Your task to perform on an android device: visit the assistant section in the google photos Image 0: 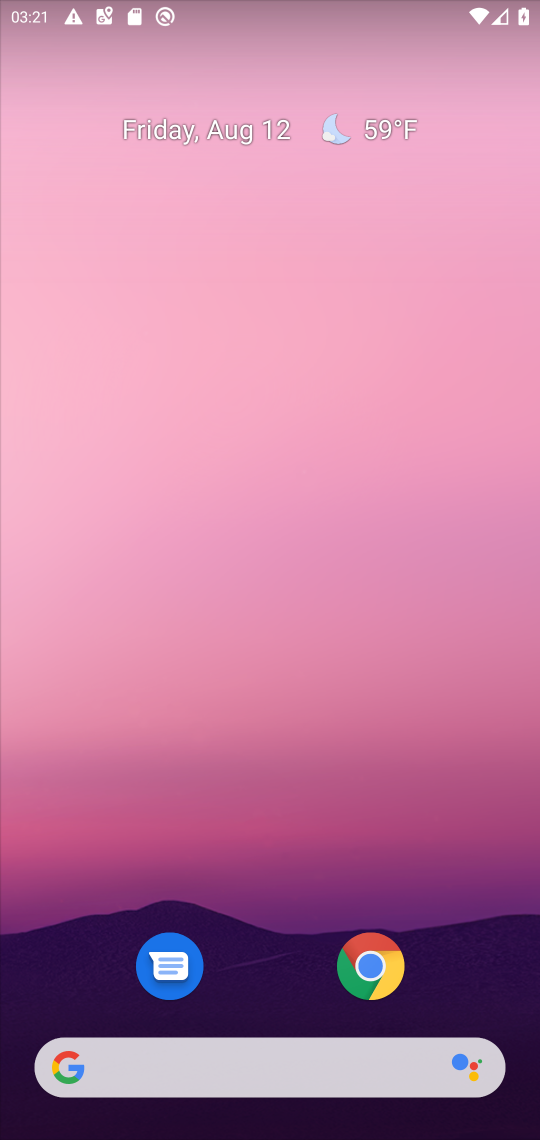
Step 0: drag from (280, 917) to (307, 78)
Your task to perform on an android device: visit the assistant section in the google photos Image 1: 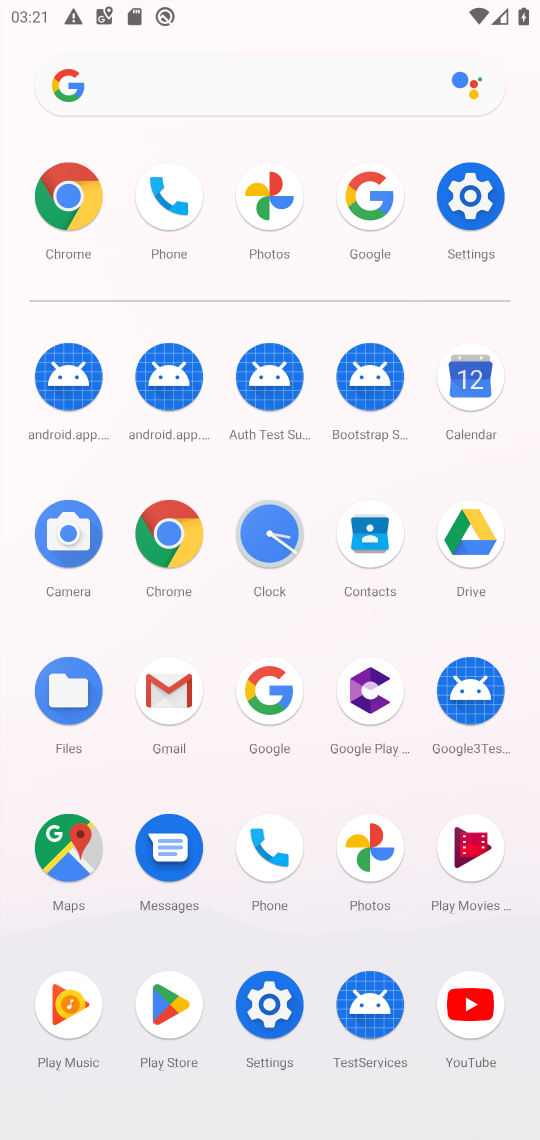
Step 1: click (363, 831)
Your task to perform on an android device: visit the assistant section in the google photos Image 2: 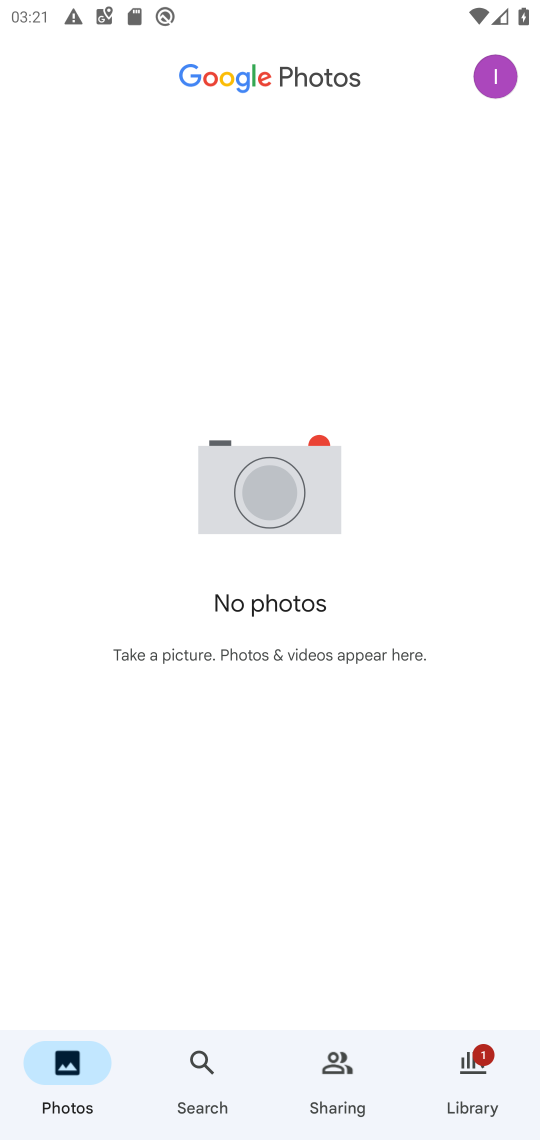
Step 2: click (486, 1083)
Your task to perform on an android device: visit the assistant section in the google photos Image 3: 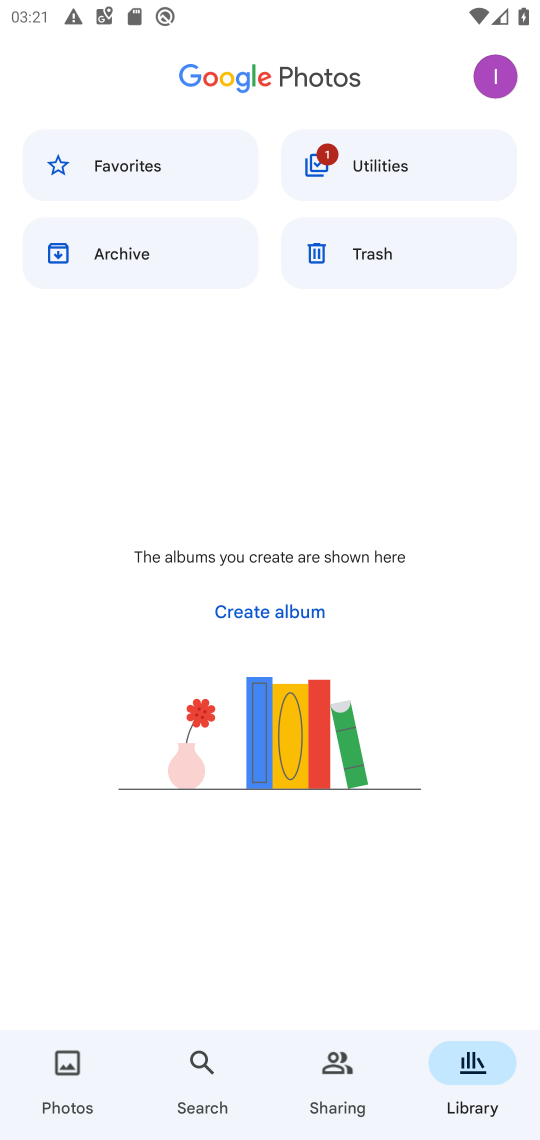
Step 3: click (383, 153)
Your task to perform on an android device: visit the assistant section in the google photos Image 4: 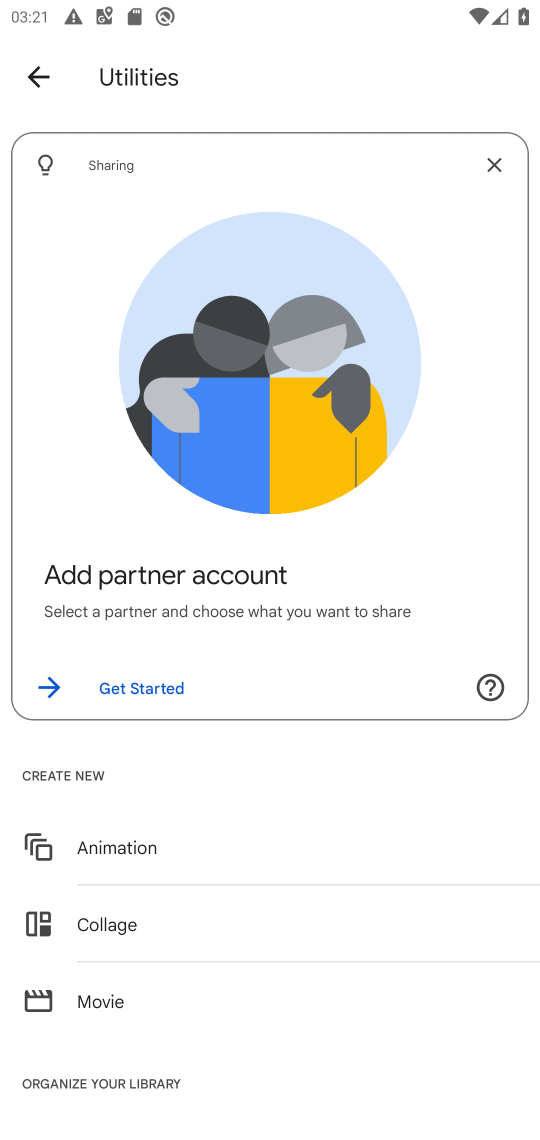
Step 4: task complete